Your task to perform on an android device: Do I have any events this weekend? Image 0: 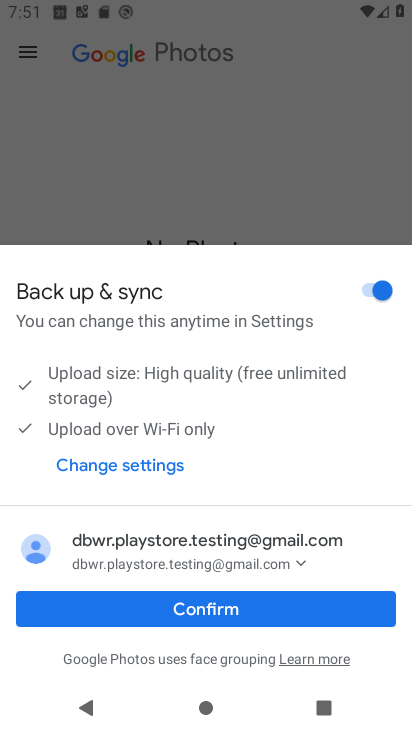
Step 0: press home button
Your task to perform on an android device: Do I have any events this weekend? Image 1: 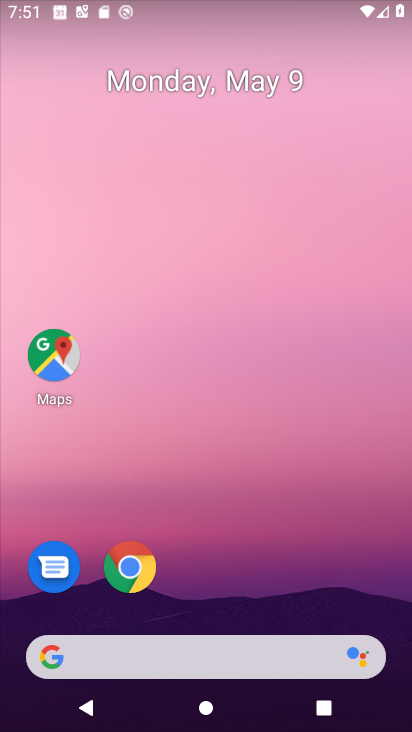
Step 1: drag from (239, 577) to (144, 51)
Your task to perform on an android device: Do I have any events this weekend? Image 2: 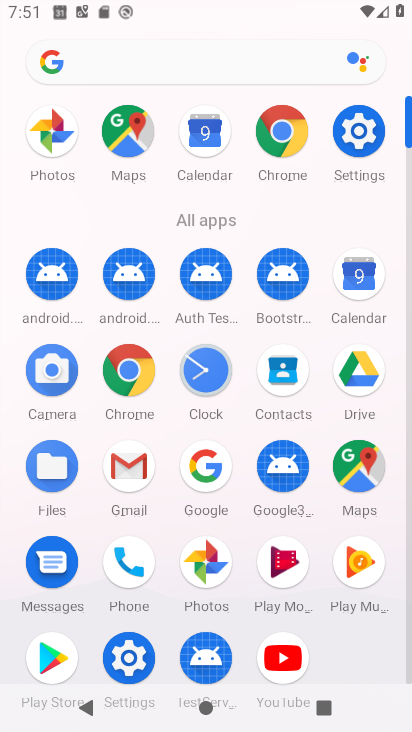
Step 2: click (351, 279)
Your task to perform on an android device: Do I have any events this weekend? Image 3: 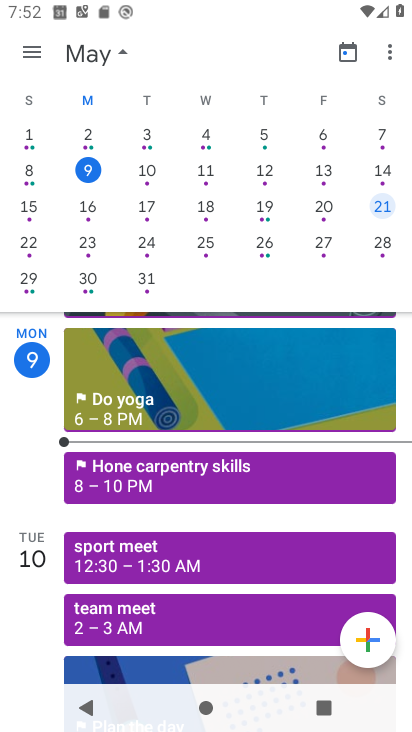
Step 3: click (376, 168)
Your task to perform on an android device: Do I have any events this weekend? Image 4: 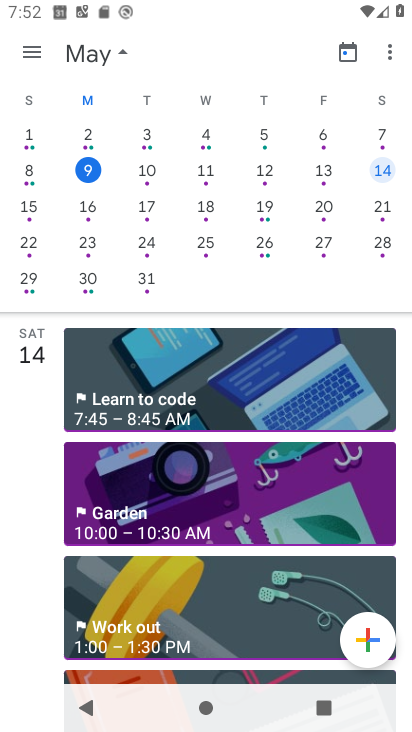
Step 4: click (22, 208)
Your task to perform on an android device: Do I have any events this weekend? Image 5: 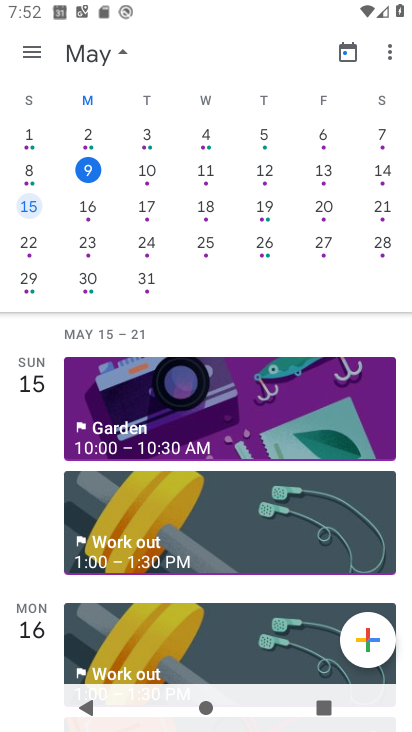
Step 5: task complete